Your task to perform on an android device: stop showing notifications on the lock screen Image 0: 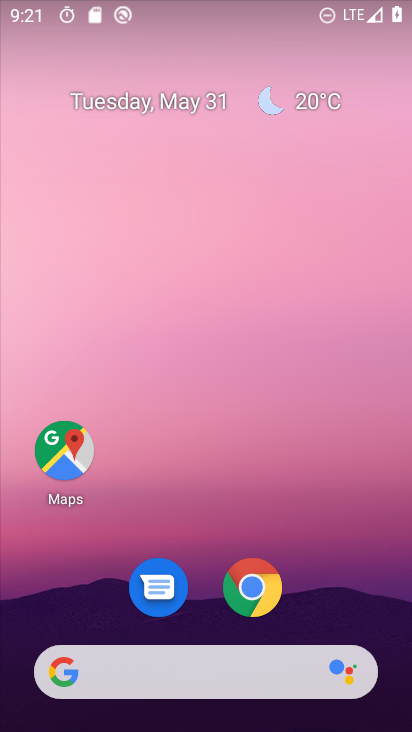
Step 0: drag from (205, 624) to (213, 16)
Your task to perform on an android device: stop showing notifications on the lock screen Image 1: 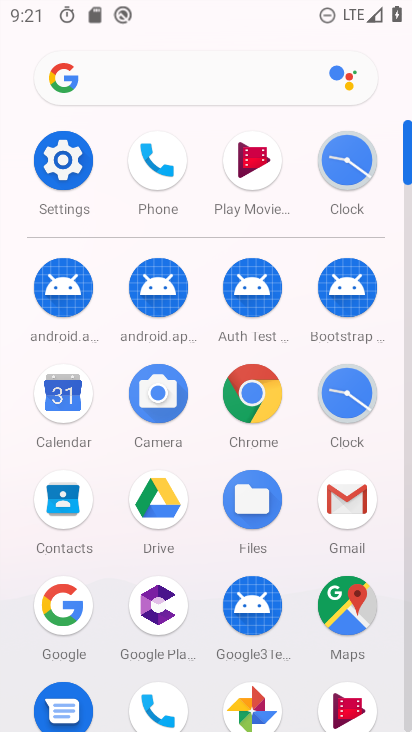
Step 1: click (59, 147)
Your task to perform on an android device: stop showing notifications on the lock screen Image 2: 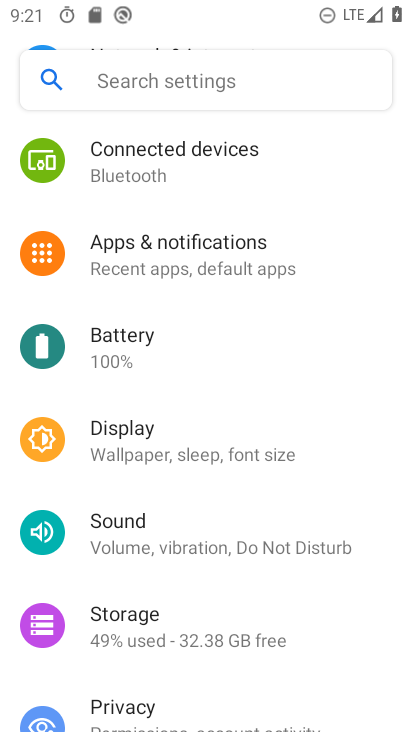
Step 2: click (135, 270)
Your task to perform on an android device: stop showing notifications on the lock screen Image 3: 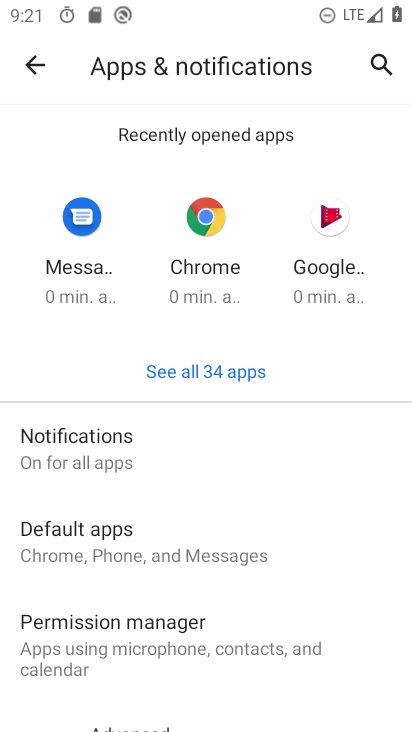
Step 3: click (135, 454)
Your task to perform on an android device: stop showing notifications on the lock screen Image 4: 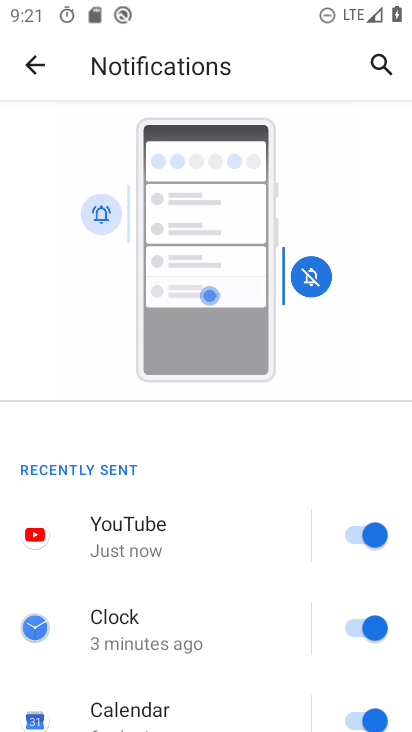
Step 4: drag from (141, 624) to (229, 104)
Your task to perform on an android device: stop showing notifications on the lock screen Image 5: 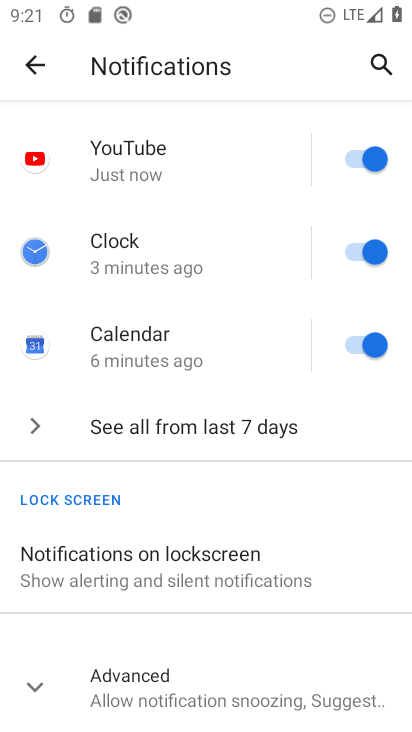
Step 5: click (114, 569)
Your task to perform on an android device: stop showing notifications on the lock screen Image 6: 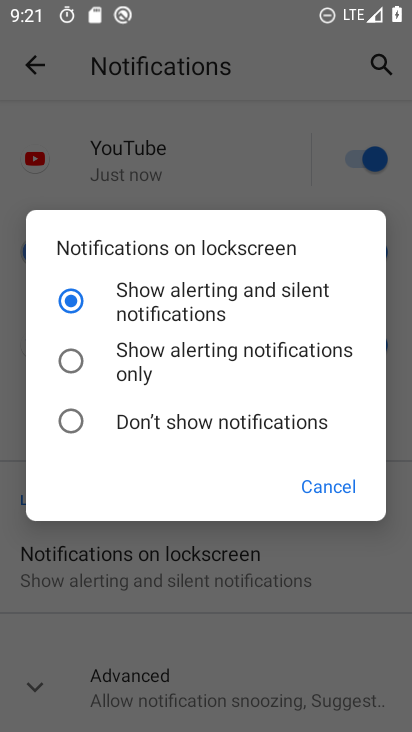
Step 6: click (137, 416)
Your task to perform on an android device: stop showing notifications on the lock screen Image 7: 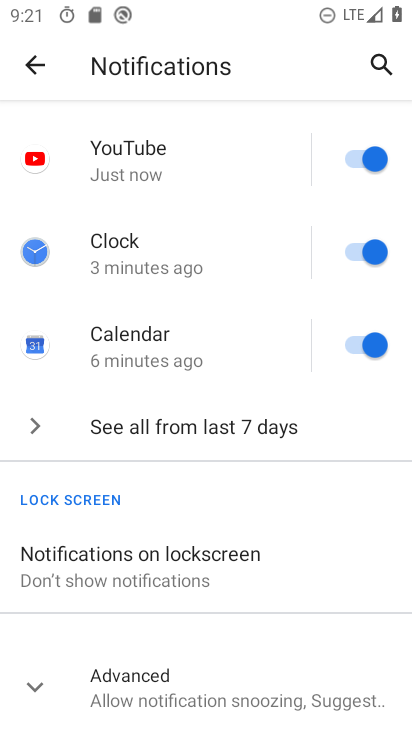
Step 7: task complete